Your task to perform on an android device: What's on my calendar today? Image 0: 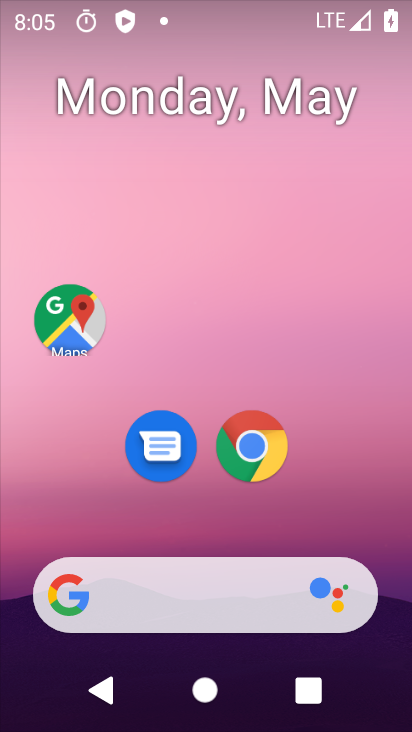
Step 0: drag from (368, 512) to (354, 12)
Your task to perform on an android device: What's on my calendar today? Image 1: 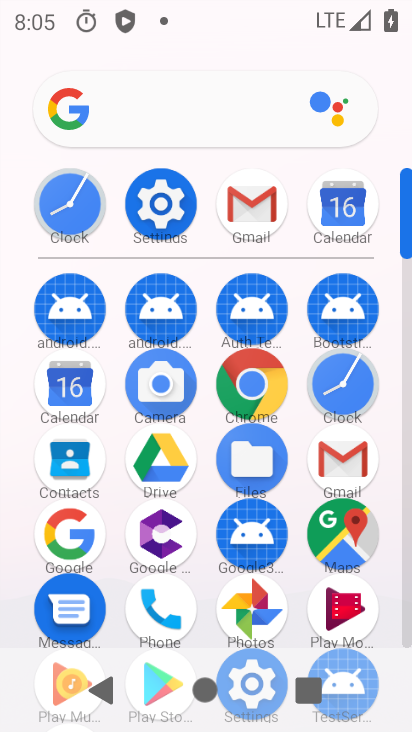
Step 1: click (344, 219)
Your task to perform on an android device: What's on my calendar today? Image 2: 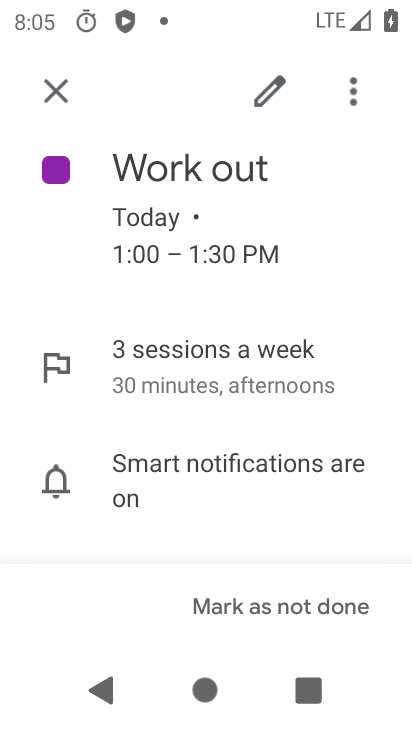
Step 2: click (54, 95)
Your task to perform on an android device: What's on my calendar today? Image 3: 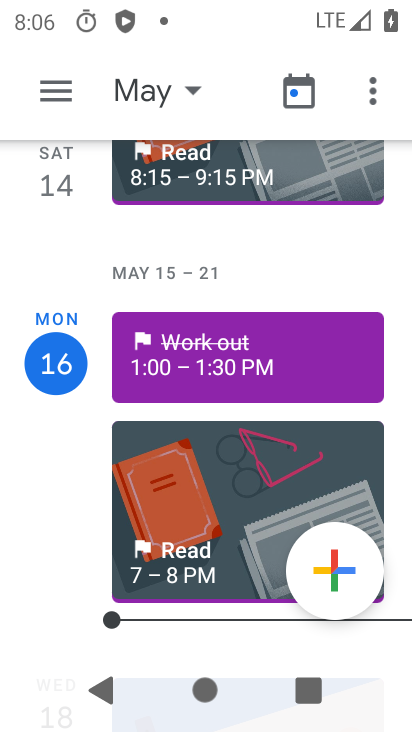
Step 3: drag from (221, 403) to (220, 267)
Your task to perform on an android device: What's on my calendar today? Image 4: 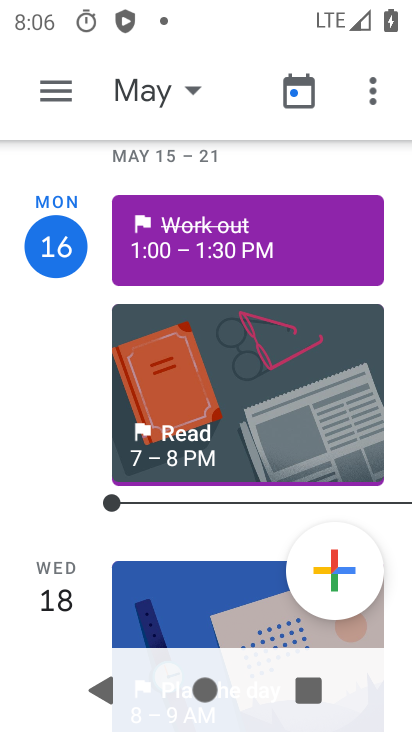
Step 4: click (220, 267)
Your task to perform on an android device: What's on my calendar today? Image 5: 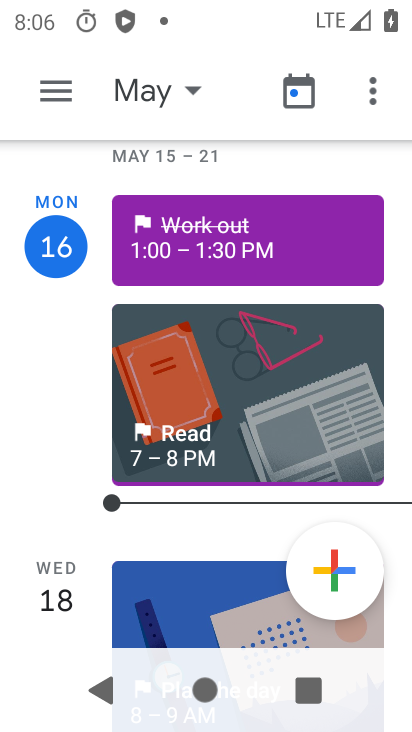
Step 5: click (220, 250)
Your task to perform on an android device: What's on my calendar today? Image 6: 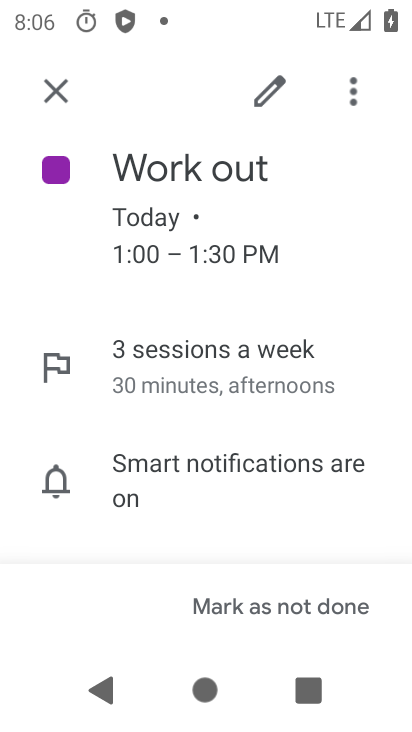
Step 6: task complete